Your task to perform on an android device: Is it going to rain this weekend? Image 0: 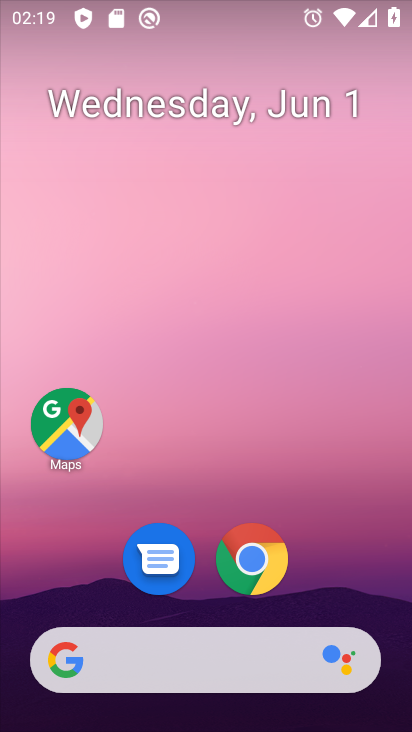
Step 0: press home button
Your task to perform on an android device: Is it going to rain this weekend? Image 1: 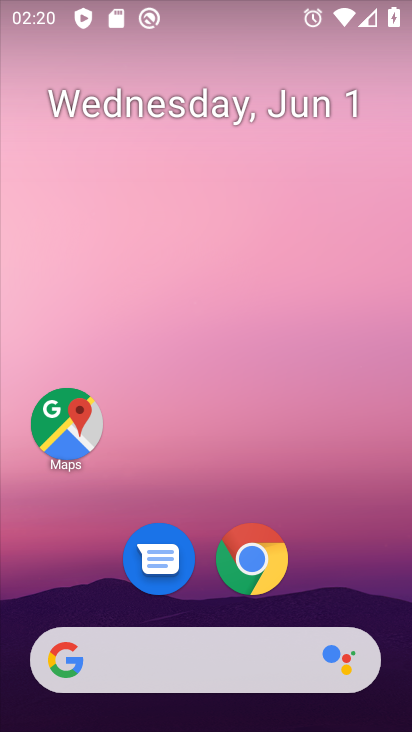
Step 1: click (63, 659)
Your task to perform on an android device: Is it going to rain this weekend? Image 2: 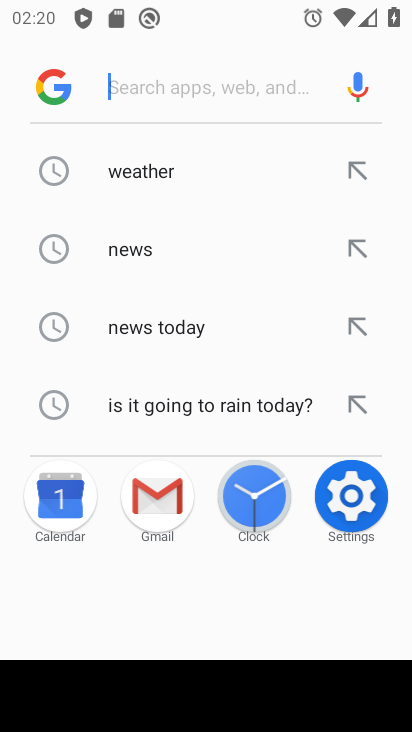
Step 2: type "rain this weekend?"
Your task to perform on an android device: Is it going to rain this weekend? Image 3: 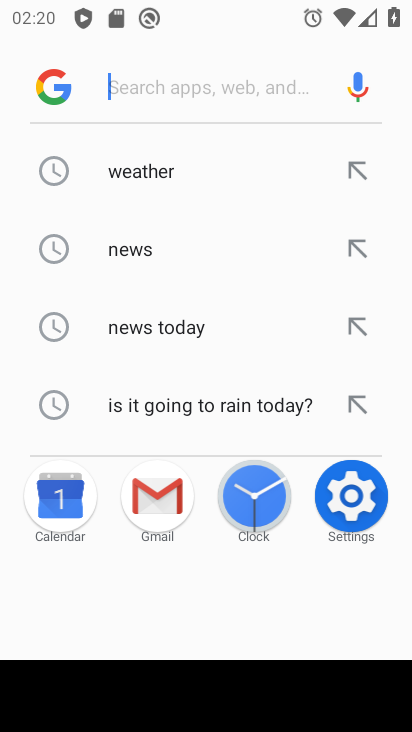
Step 3: click (179, 86)
Your task to perform on an android device: Is it going to rain this weekend? Image 4: 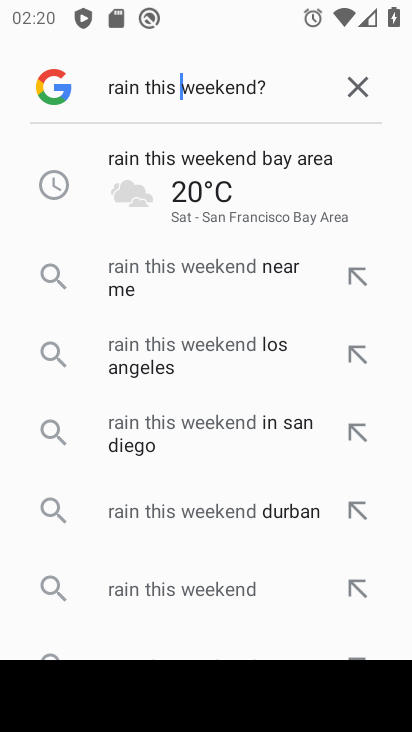
Step 4: click (204, 593)
Your task to perform on an android device: Is it going to rain this weekend? Image 5: 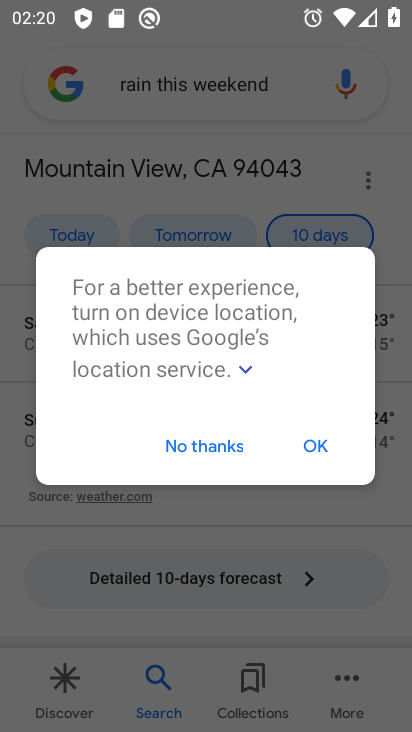
Step 5: click (313, 441)
Your task to perform on an android device: Is it going to rain this weekend? Image 6: 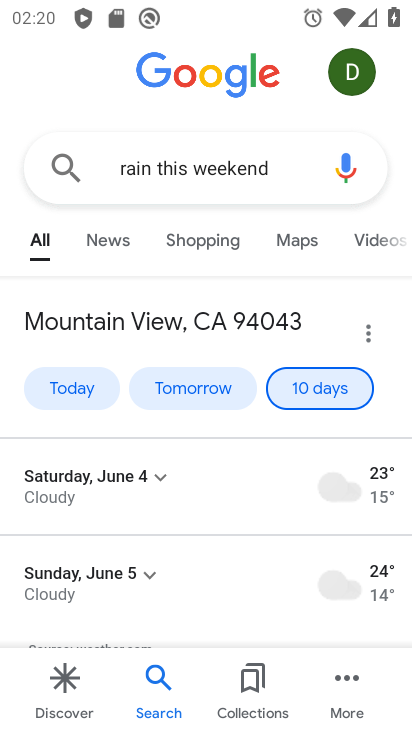
Step 6: task complete